Your task to perform on an android device: change text size in settings app Image 0: 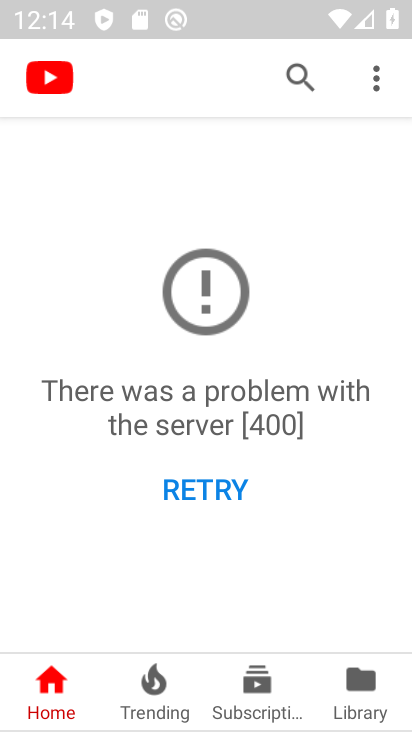
Step 0: press home button
Your task to perform on an android device: change text size in settings app Image 1: 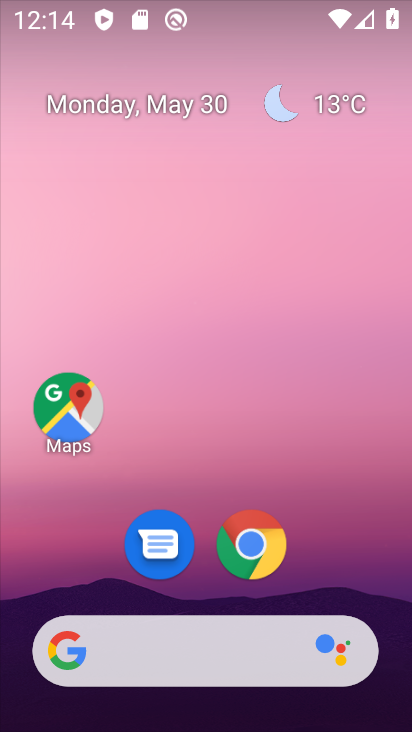
Step 1: drag from (357, 584) to (338, 40)
Your task to perform on an android device: change text size in settings app Image 2: 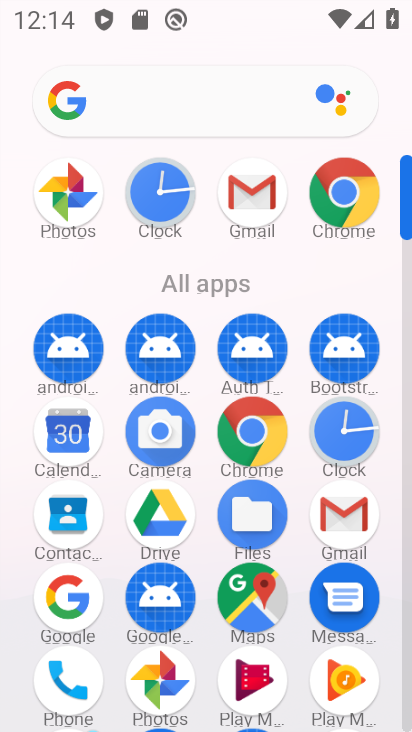
Step 2: click (410, 705)
Your task to perform on an android device: change text size in settings app Image 3: 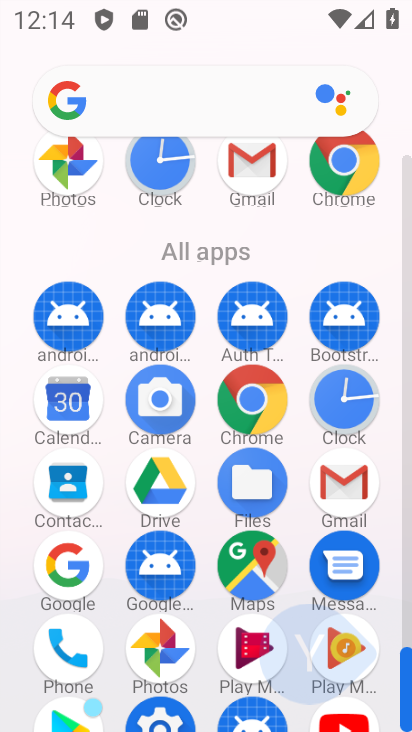
Step 3: click (410, 705)
Your task to perform on an android device: change text size in settings app Image 4: 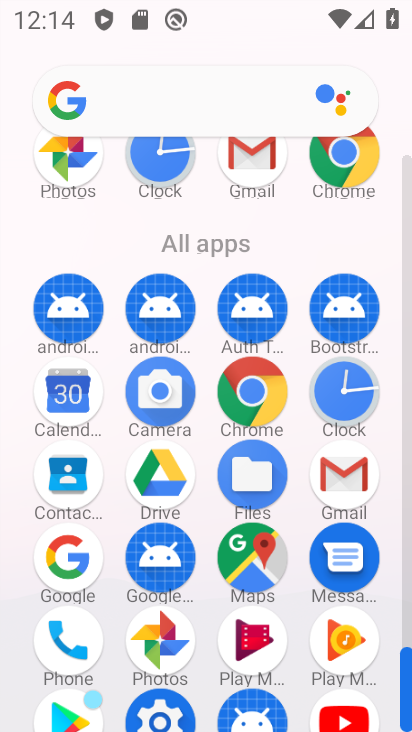
Step 4: click (410, 705)
Your task to perform on an android device: change text size in settings app Image 5: 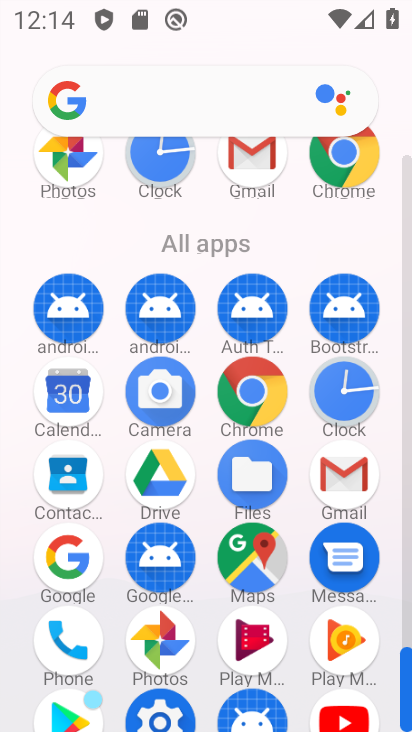
Step 5: click (171, 710)
Your task to perform on an android device: change text size in settings app Image 6: 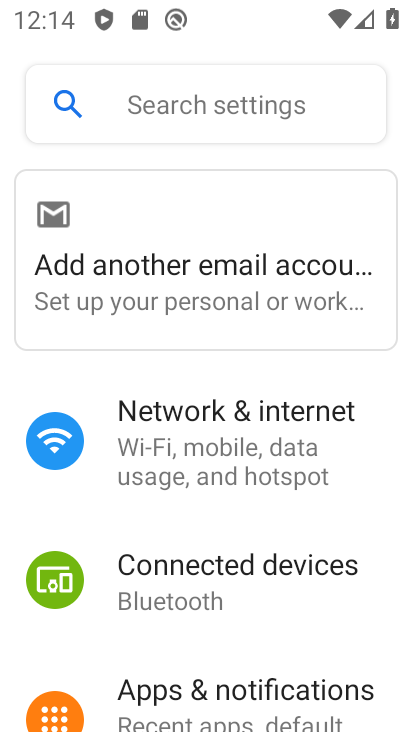
Step 6: drag from (295, 587) to (297, 413)
Your task to perform on an android device: change text size in settings app Image 7: 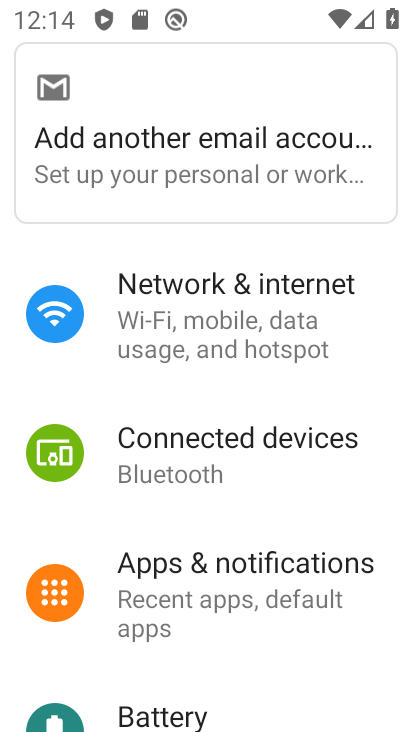
Step 7: click (297, 413)
Your task to perform on an android device: change text size in settings app Image 8: 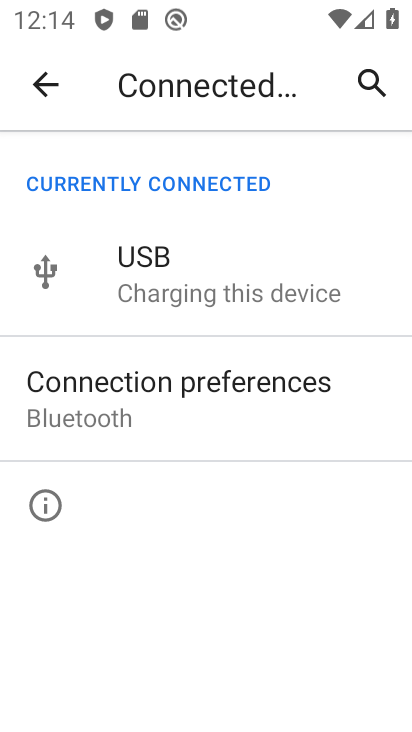
Step 8: click (35, 113)
Your task to perform on an android device: change text size in settings app Image 9: 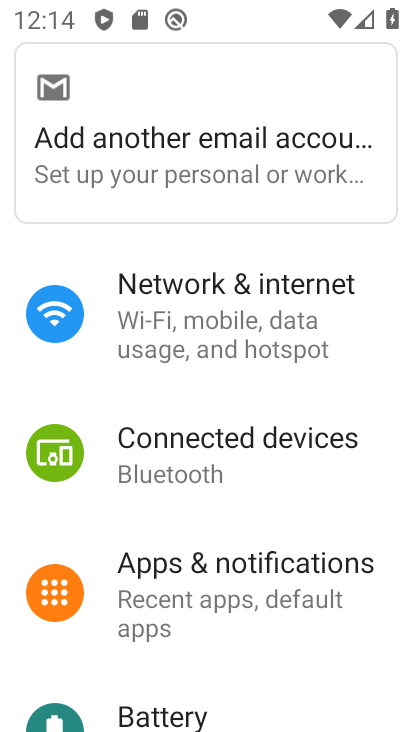
Step 9: drag from (254, 484) to (257, 140)
Your task to perform on an android device: change text size in settings app Image 10: 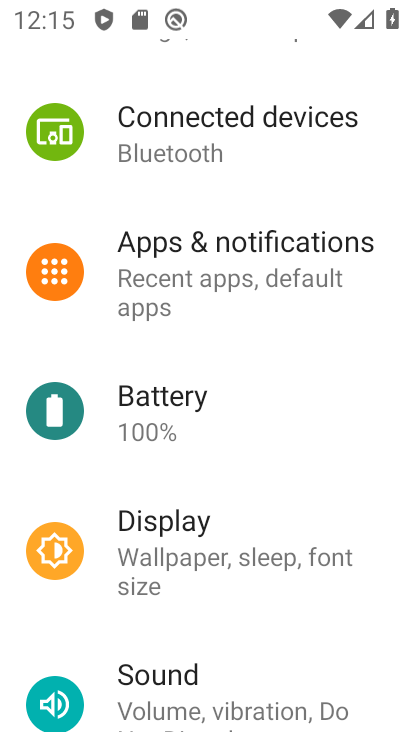
Step 10: click (261, 574)
Your task to perform on an android device: change text size in settings app Image 11: 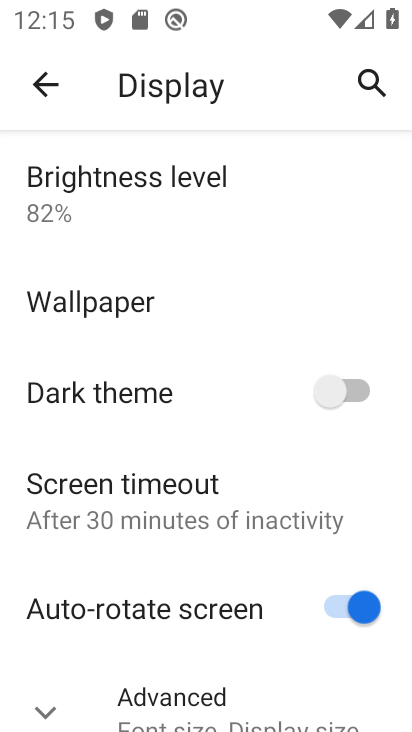
Step 11: click (240, 539)
Your task to perform on an android device: change text size in settings app Image 12: 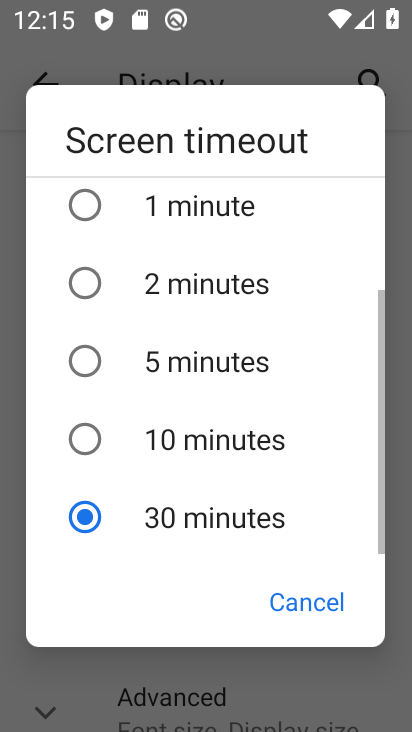
Step 12: click (228, 498)
Your task to perform on an android device: change text size in settings app Image 13: 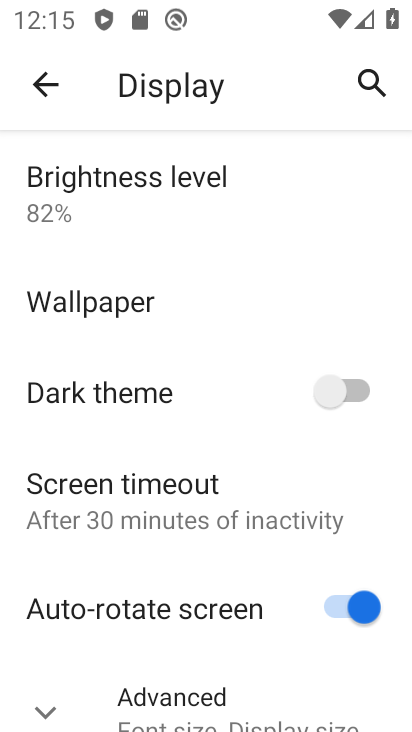
Step 13: task complete